Your task to perform on an android device: toggle javascript in the chrome app Image 0: 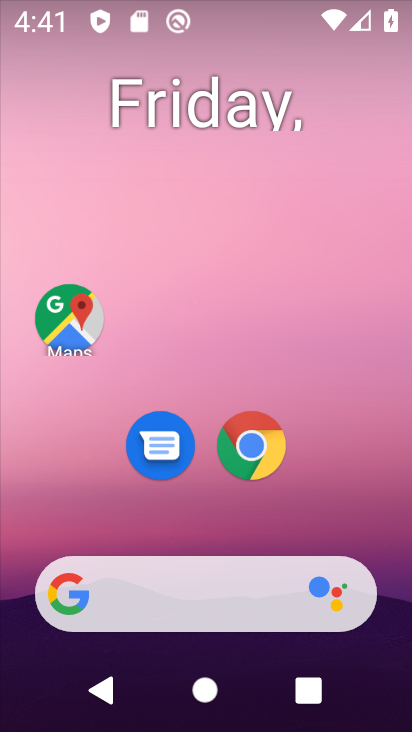
Step 0: click (249, 455)
Your task to perform on an android device: toggle javascript in the chrome app Image 1: 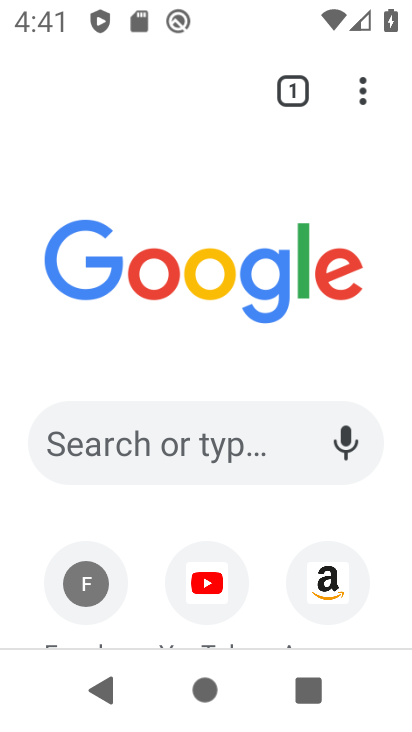
Step 1: click (359, 114)
Your task to perform on an android device: toggle javascript in the chrome app Image 2: 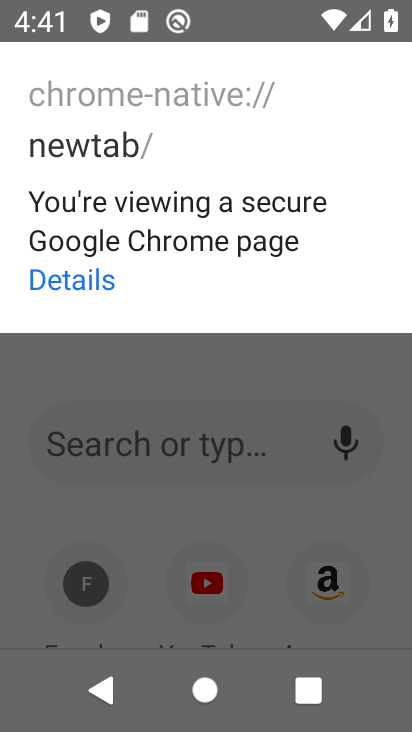
Step 2: click (310, 499)
Your task to perform on an android device: toggle javascript in the chrome app Image 3: 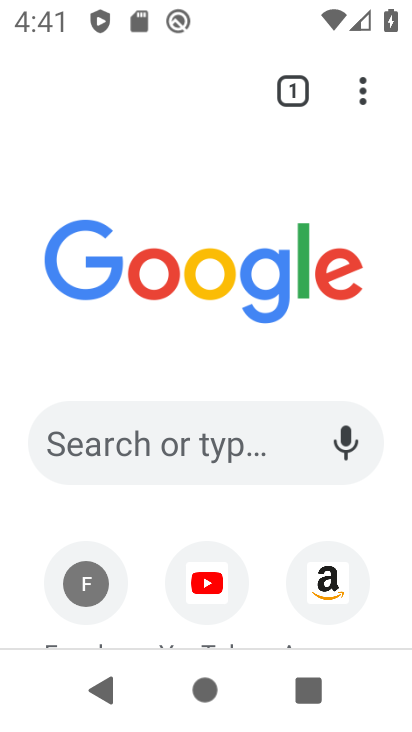
Step 3: click (377, 87)
Your task to perform on an android device: toggle javascript in the chrome app Image 4: 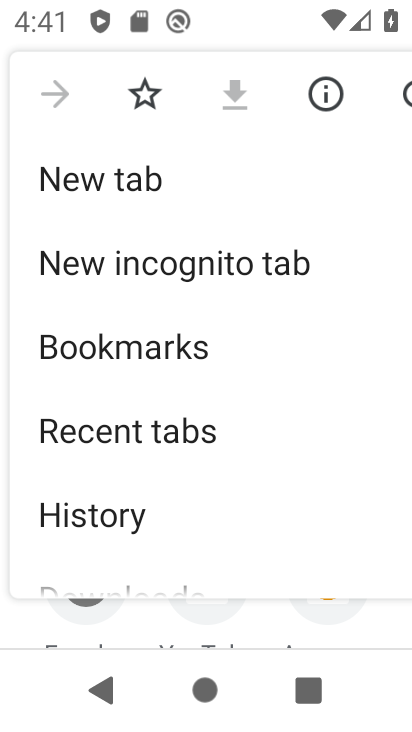
Step 4: drag from (236, 436) to (304, 85)
Your task to perform on an android device: toggle javascript in the chrome app Image 5: 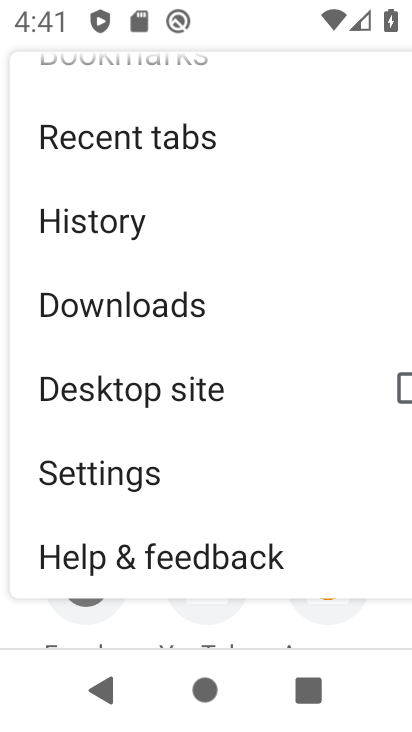
Step 5: click (206, 456)
Your task to perform on an android device: toggle javascript in the chrome app Image 6: 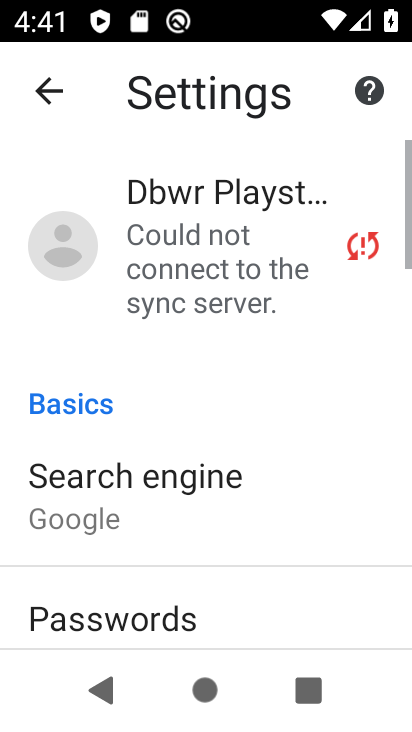
Step 6: drag from (175, 537) to (242, 273)
Your task to perform on an android device: toggle javascript in the chrome app Image 7: 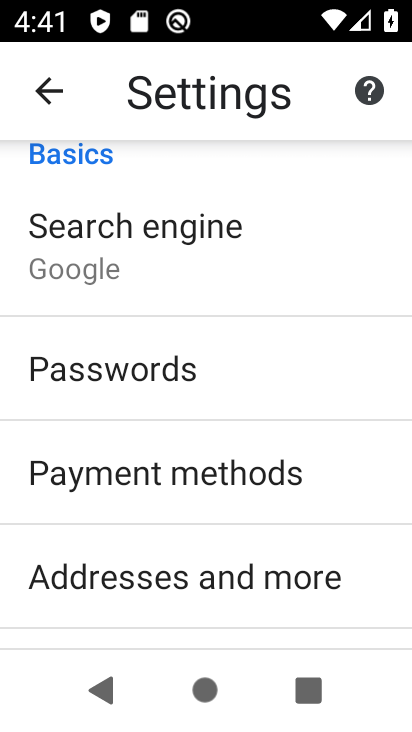
Step 7: drag from (231, 532) to (266, 321)
Your task to perform on an android device: toggle javascript in the chrome app Image 8: 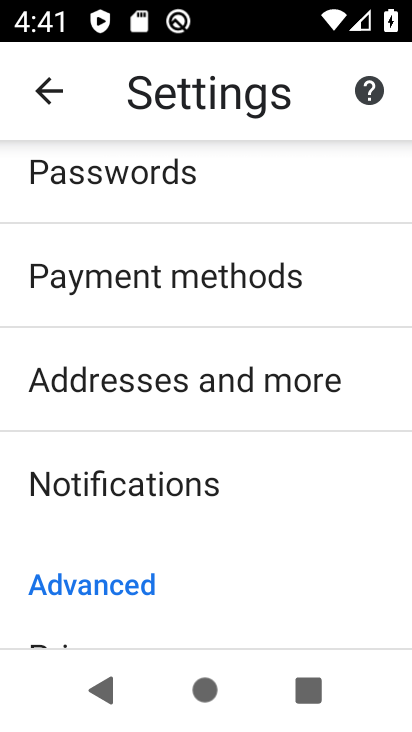
Step 8: drag from (183, 582) to (233, 329)
Your task to perform on an android device: toggle javascript in the chrome app Image 9: 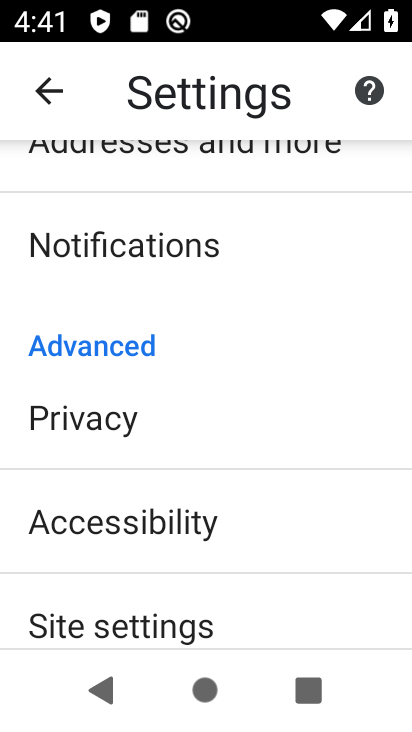
Step 9: click (192, 605)
Your task to perform on an android device: toggle javascript in the chrome app Image 10: 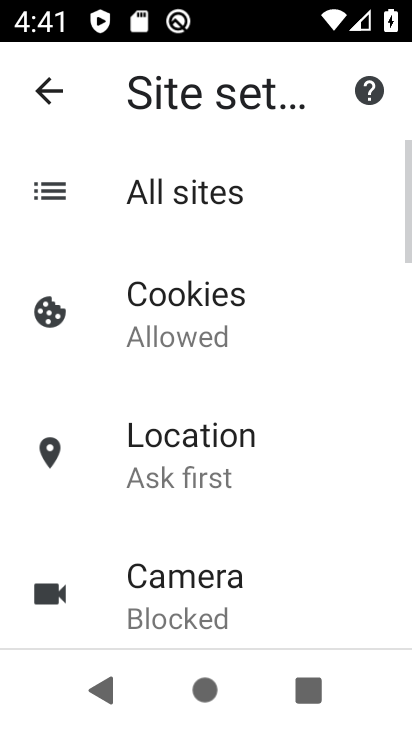
Step 10: drag from (219, 495) to (266, 308)
Your task to perform on an android device: toggle javascript in the chrome app Image 11: 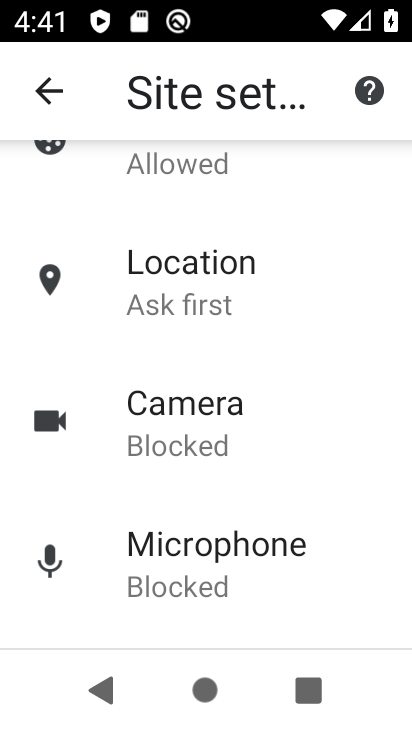
Step 11: drag from (245, 601) to (267, 252)
Your task to perform on an android device: toggle javascript in the chrome app Image 12: 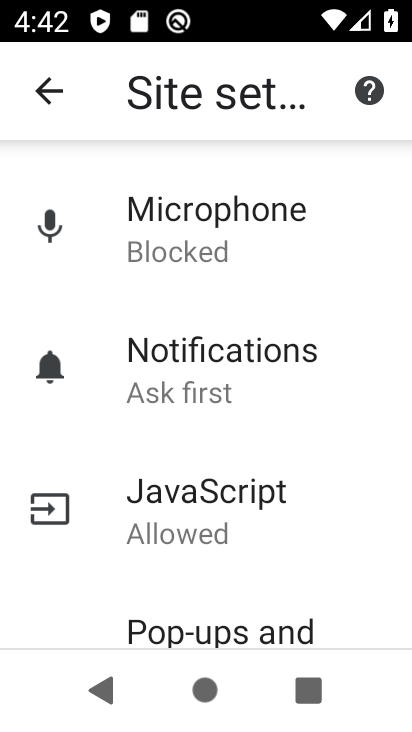
Step 12: click (240, 489)
Your task to perform on an android device: toggle javascript in the chrome app Image 13: 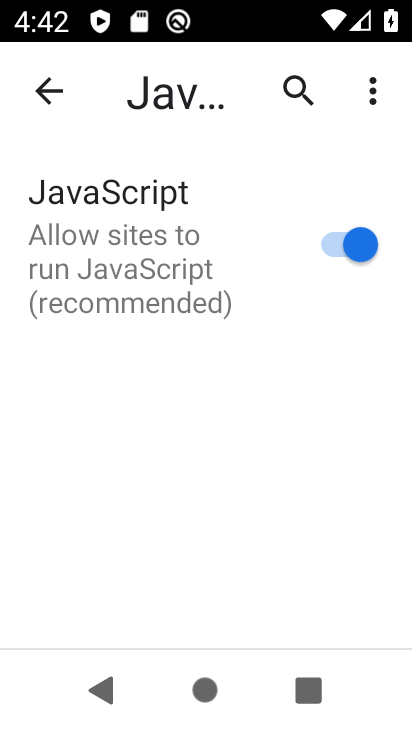
Step 13: task complete